Your task to perform on an android device: Open network settings Image 0: 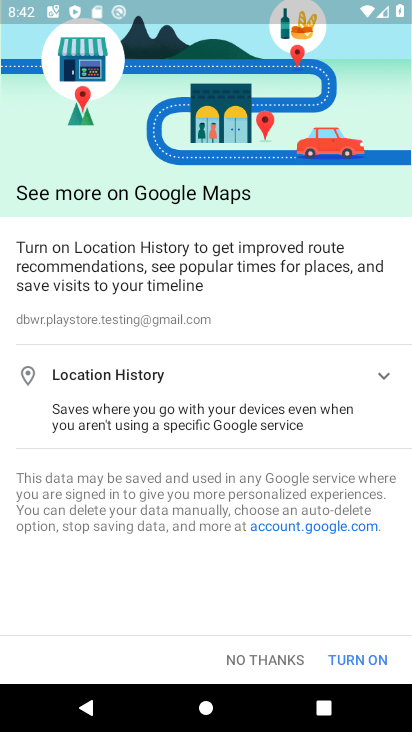
Step 0: drag from (199, 9) to (205, 491)
Your task to perform on an android device: Open network settings Image 1: 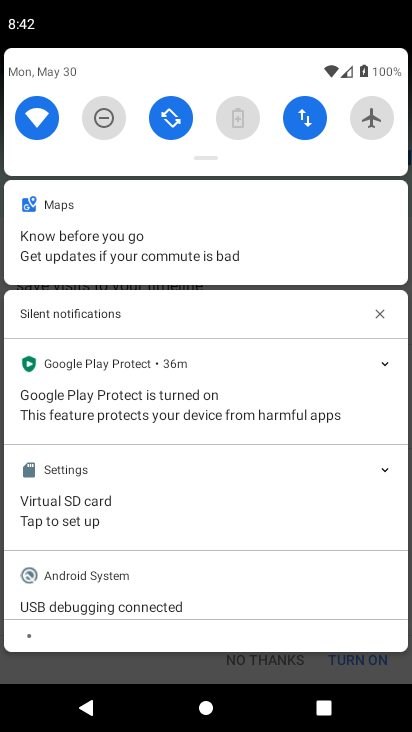
Step 1: click (310, 131)
Your task to perform on an android device: Open network settings Image 2: 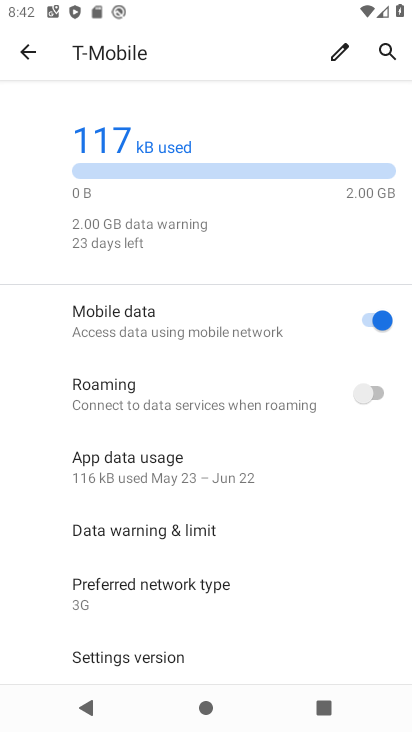
Step 2: task complete